Your task to perform on an android device: toggle javascript in the chrome app Image 0: 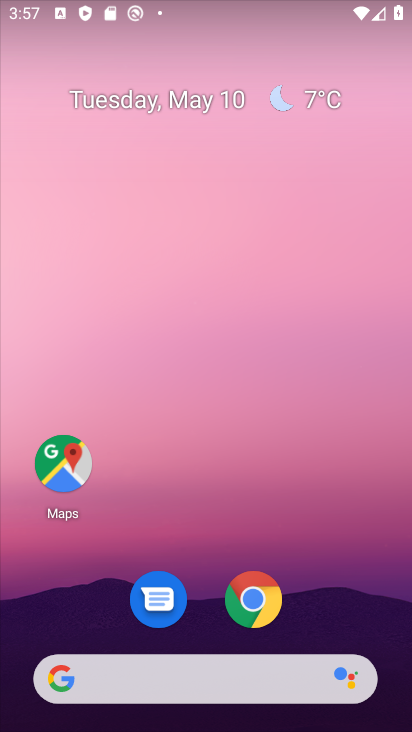
Step 0: click (280, 607)
Your task to perform on an android device: toggle javascript in the chrome app Image 1: 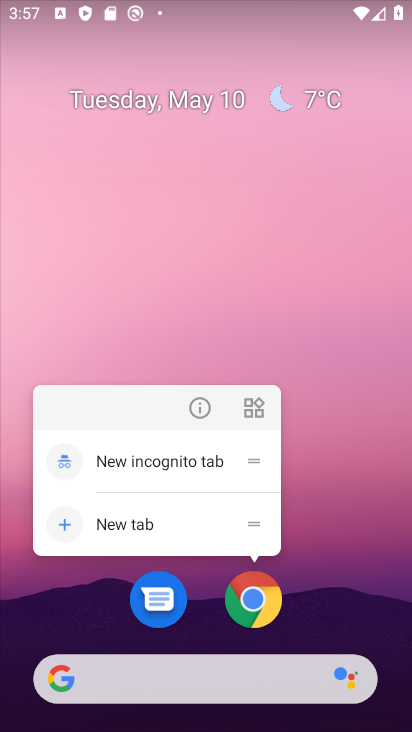
Step 1: click (258, 601)
Your task to perform on an android device: toggle javascript in the chrome app Image 2: 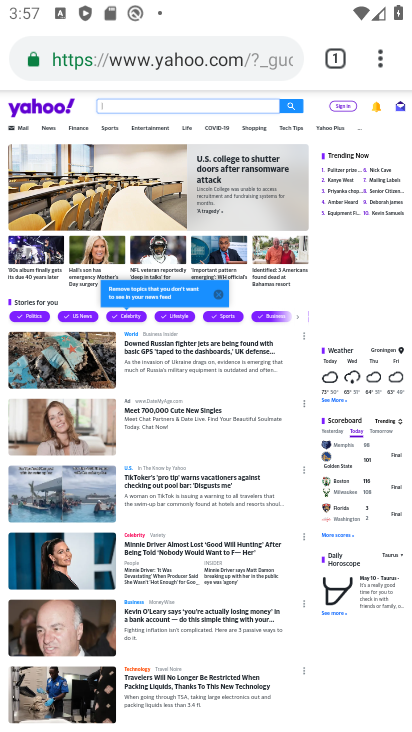
Step 2: click (389, 64)
Your task to perform on an android device: toggle javascript in the chrome app Image 3: 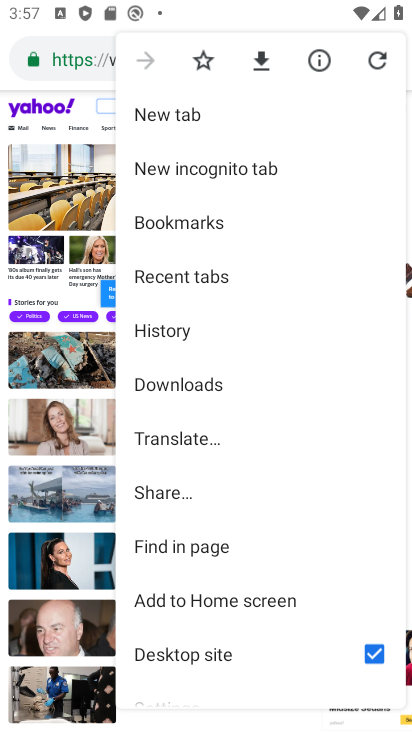
Step 3: drag from (264, 580) to (323, 228)
Your task to perform on an android device: toggle javascript in the chrome app Image 4: 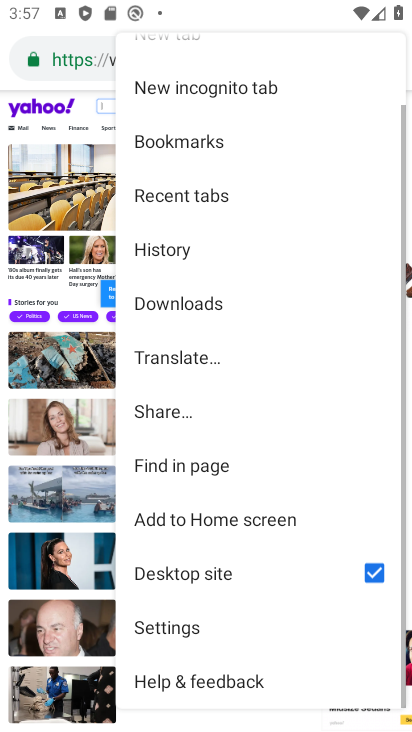
Step 4: click (233, 629)
Your task to perform on an android device: toggle javascript in the chrome app Image 5: 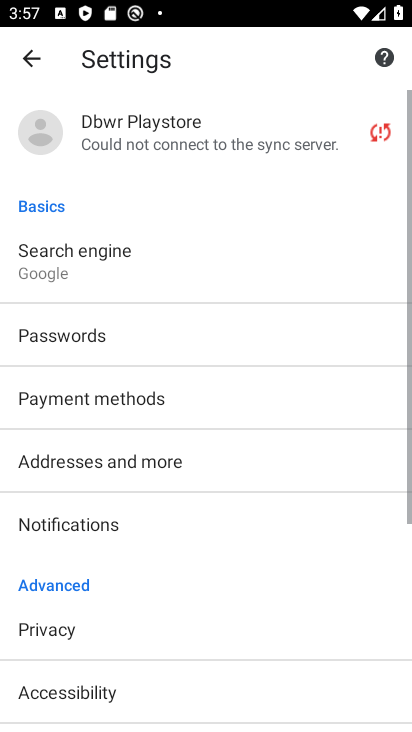
Step 5: drag from (242, 580) to (315, 231)
Your task to perform on an android device: toggle javascript in the chrome app Image 6: 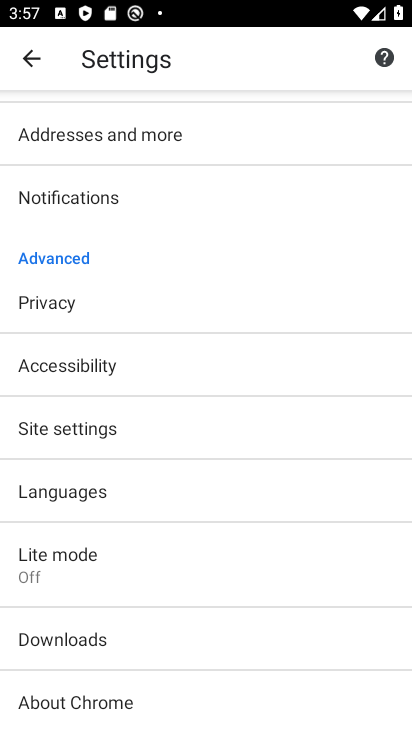
Step 6: click (112, 423)
Your task to perform on an android device: toggle javascript in the chrome app Image 7: 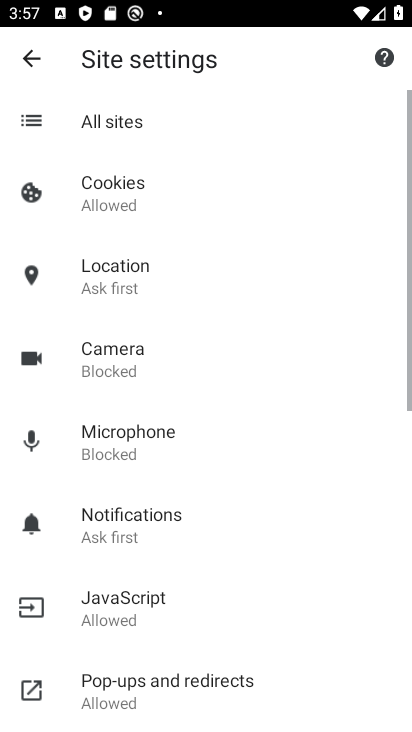
Step 7: drag from (181, 534) to (190, 663)
Your task to perform on an android device: toggle javascript in the chrome app Image 8: 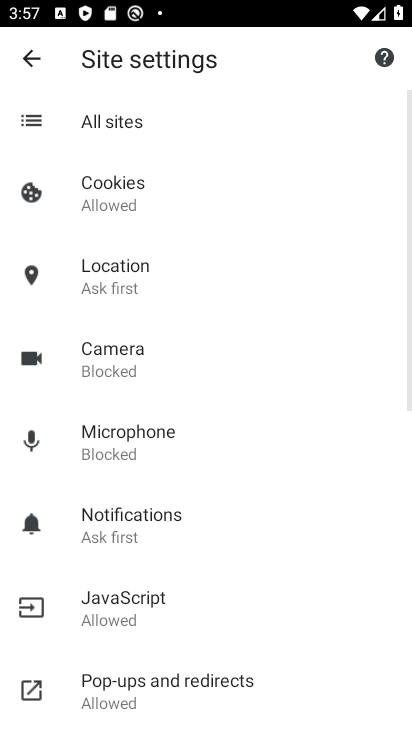
Step 8: click (187, 626)
Your task to perform on an android device: toggle javascript in the chrome app Image 9: 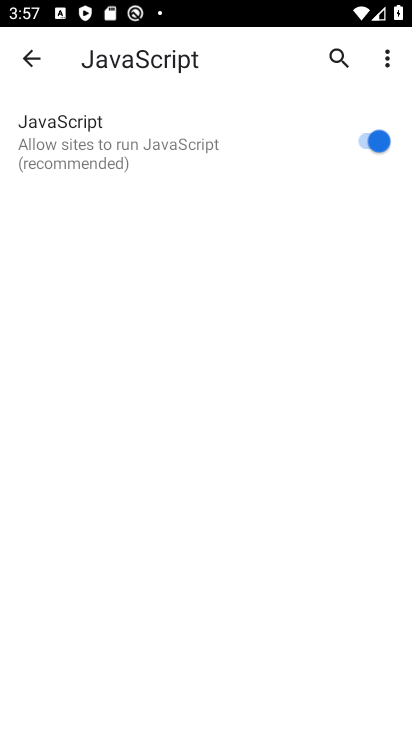
Step 9: click (371, 143)
Your task to perform on an android device: toggle javascript in the chrome app Image 10: 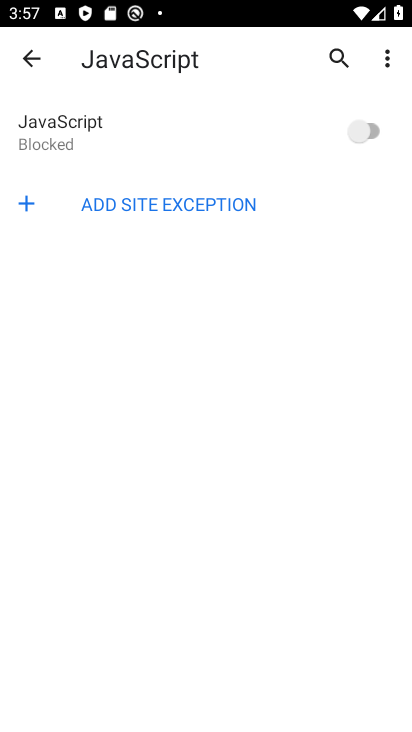
Step 10: task complete